Your task to perform on an android device: snooze an email in the gmail app Image 0: 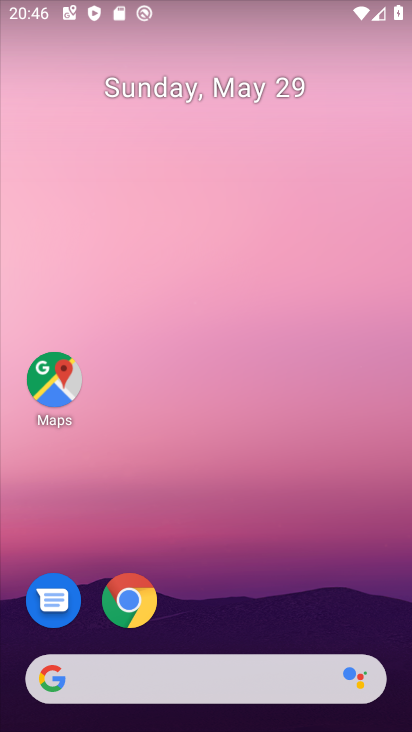
Step 0: drag from (286, 598) to (289, 225)
Your task to perform on an android device: snooze an email in the gmail app Image 1: 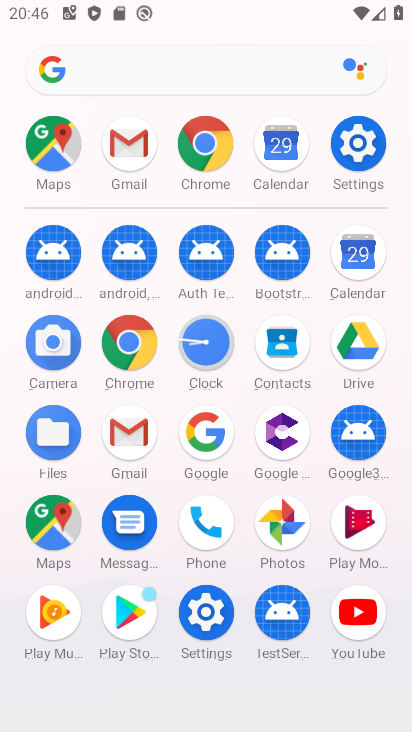
Step 1: click (118, 450)
Your task to perform on an android device: snooze an email in the gmail app Image 2: 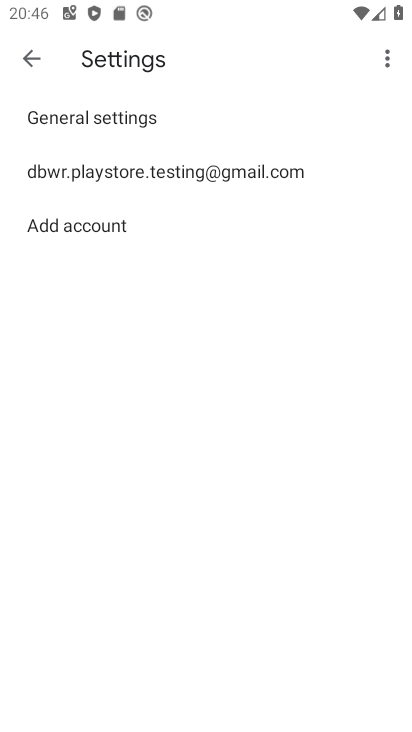
Step 2: click (100, 173)
Your task to perform on an android device: snooze an email in the gmail app Image 3: 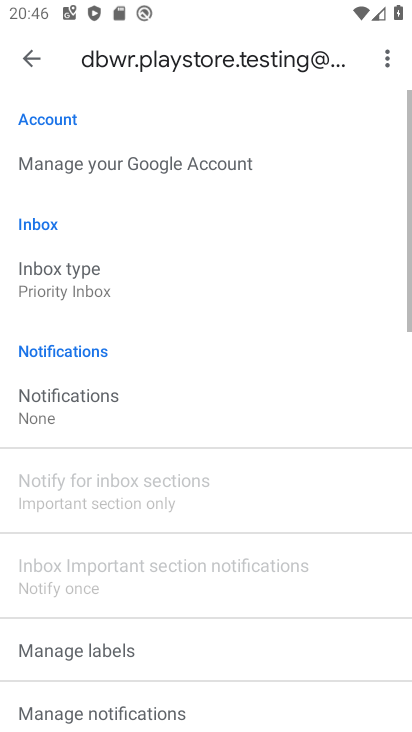
Step 3: click (34, 49)
Your task to perform on an android device: snooze an email in the gmail app Image 4: 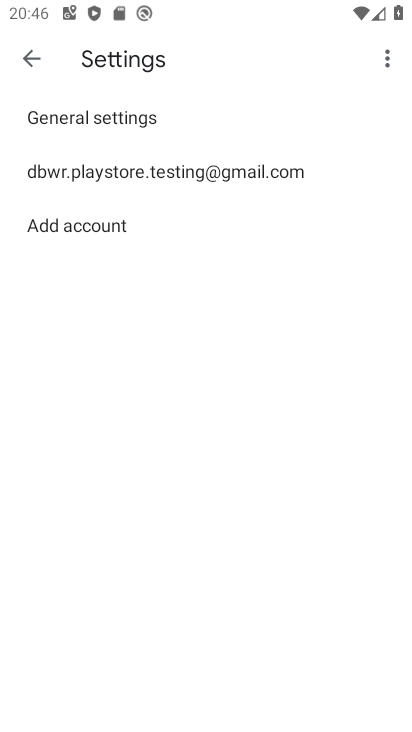
Step 4: click (32, 49)
Your task to perform on an android device: snooze an email in the gmail app Image 5: 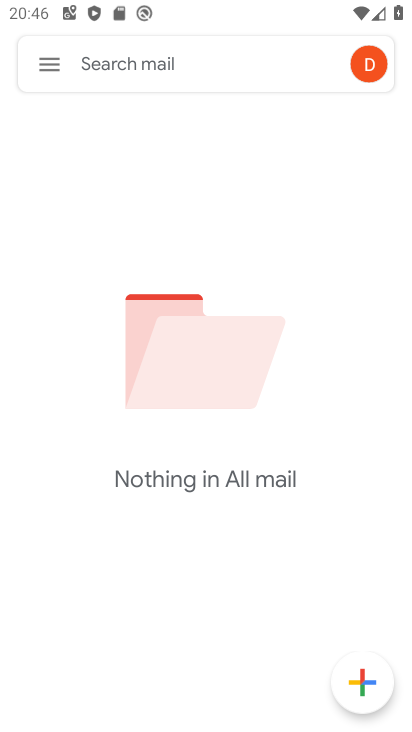
Step 5: click (49, 71)
Your task to perform on an android device: snooze an email in the gmail app Image 6: 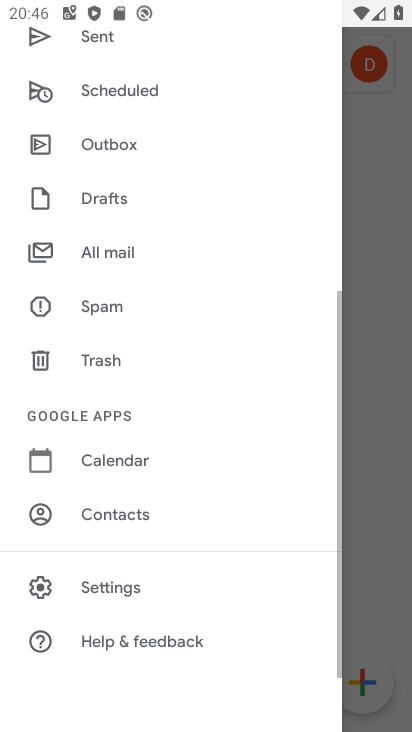
Step 6: click (129, 251)
Your task to perform on an android device: snooze an email in the gmail app Image 7: 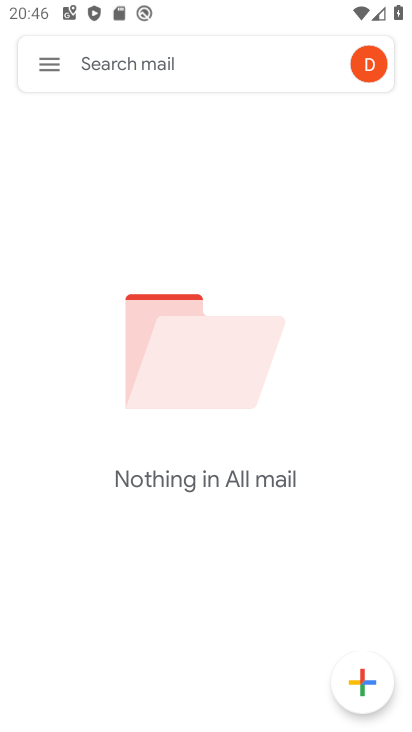
Step 7: task complete